Your task to perform on an android device: Open a new private tab in Chrome Image 0: 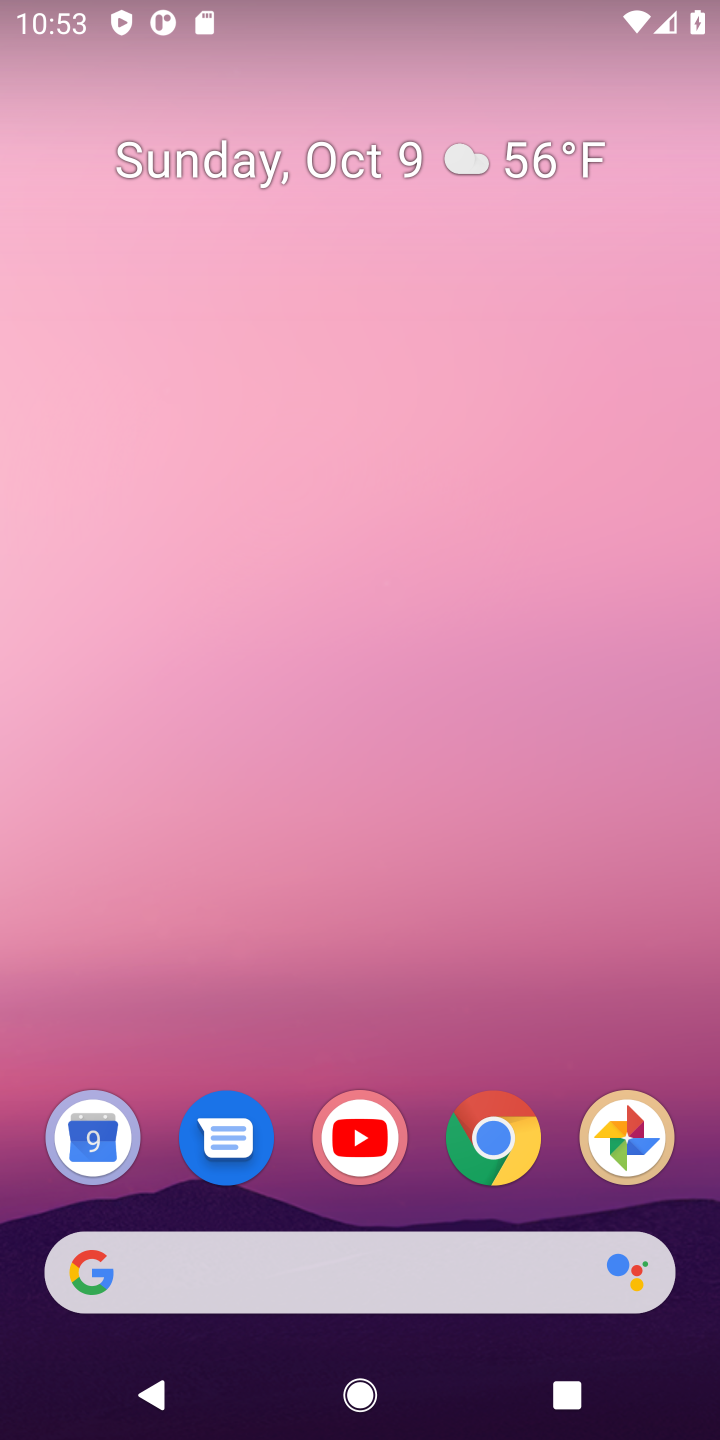
Step 0: click (484, 1127)
Your task to perform on an android device: Open a new private tab in Chrome Image 1: 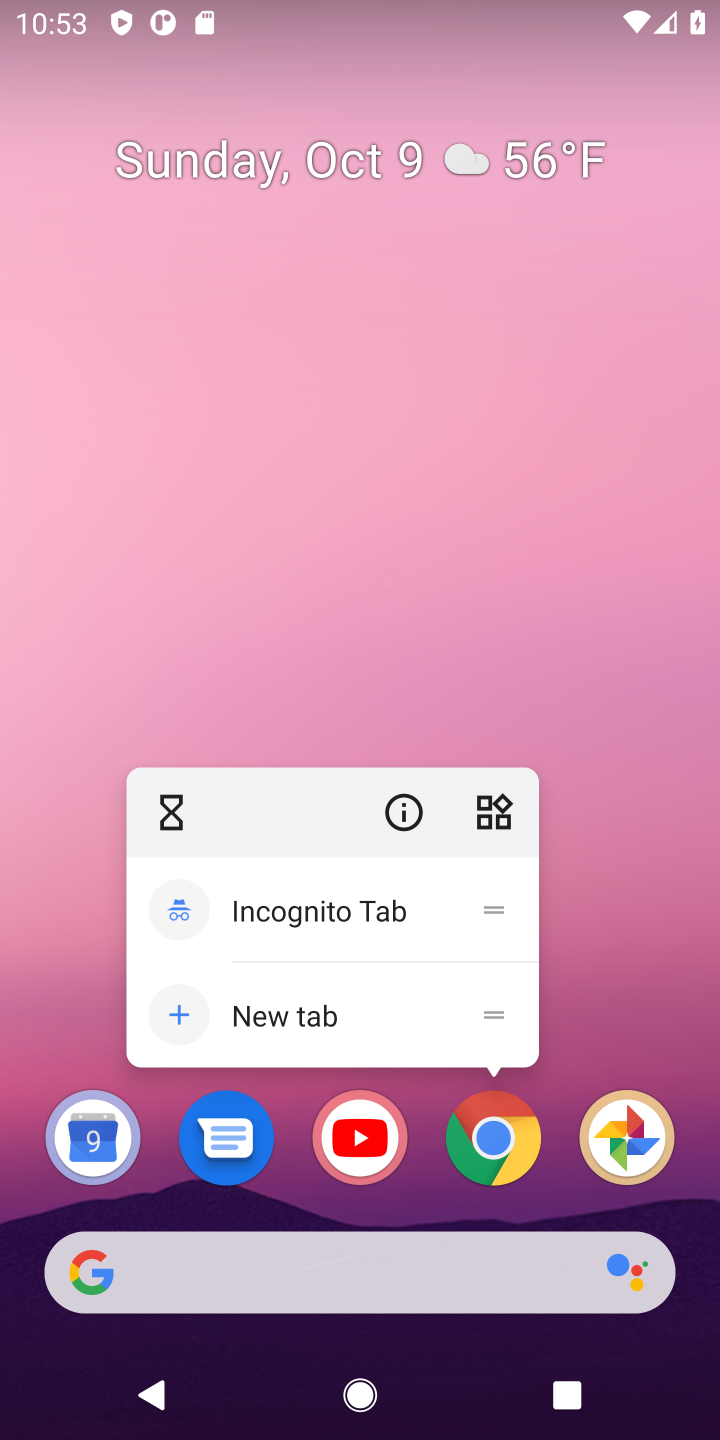
Step 1: click (506, 1141)
Your task to perform on an android device: Open a new private tab in Chrome Image 2: 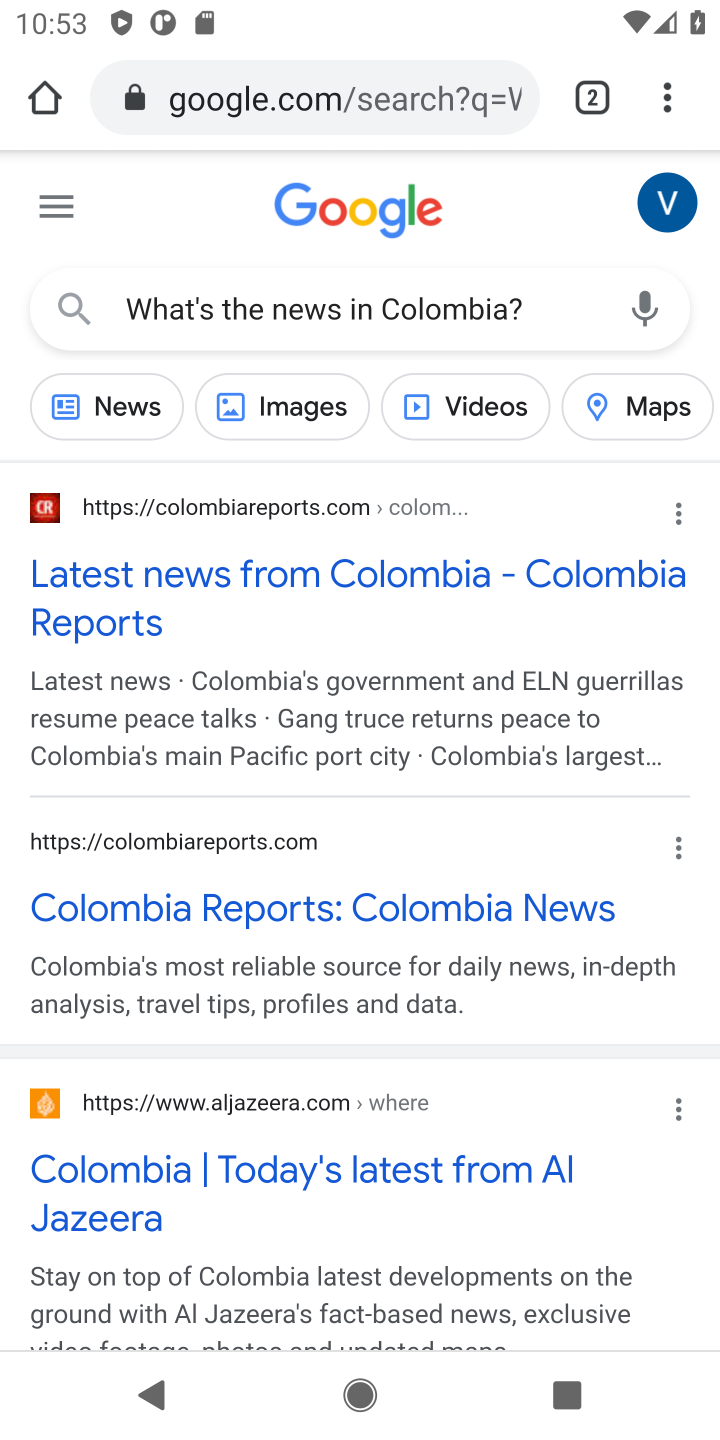
Step 2: click (316, 89)
Your task to perform on an android device: Open a new private tab in Chrome Image 3: 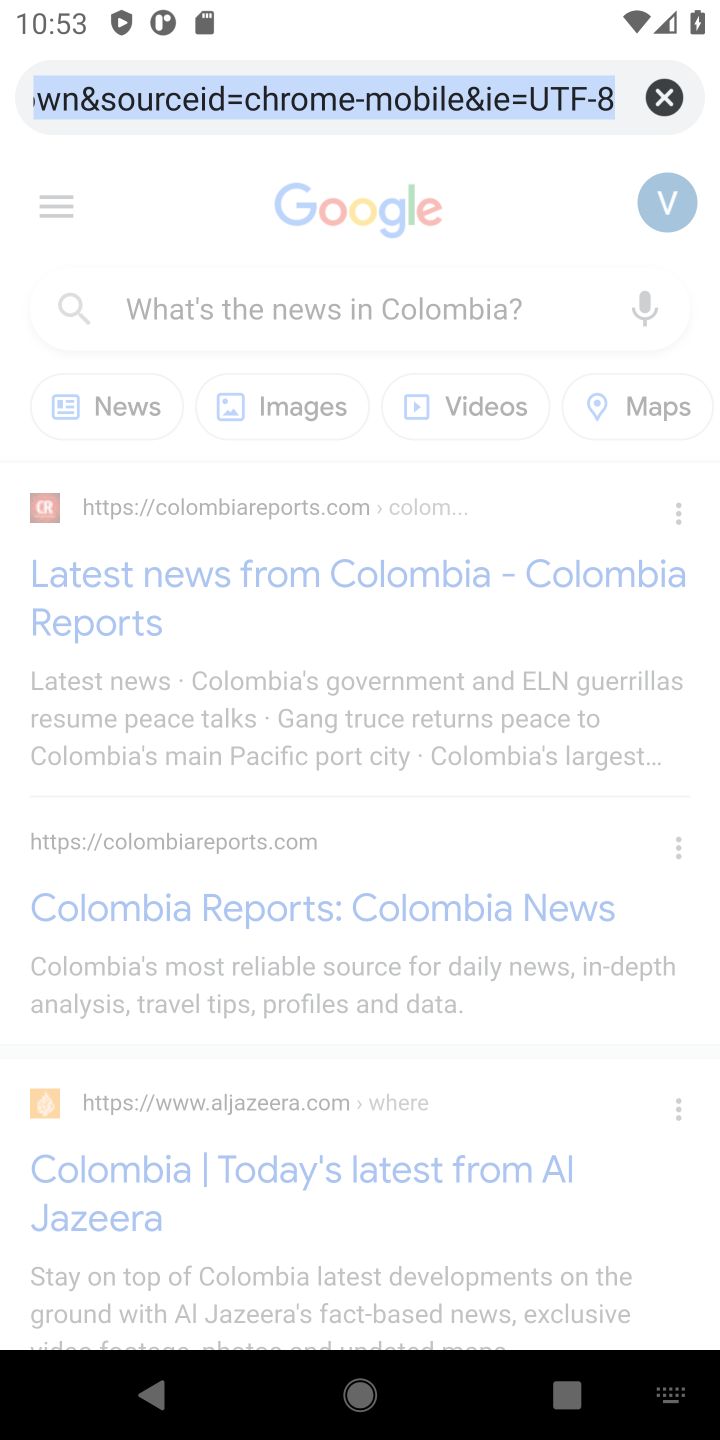
Step 3: click (657, 93)
Your task to perform on an android device: Open a new private tab in Chrome Image 4: 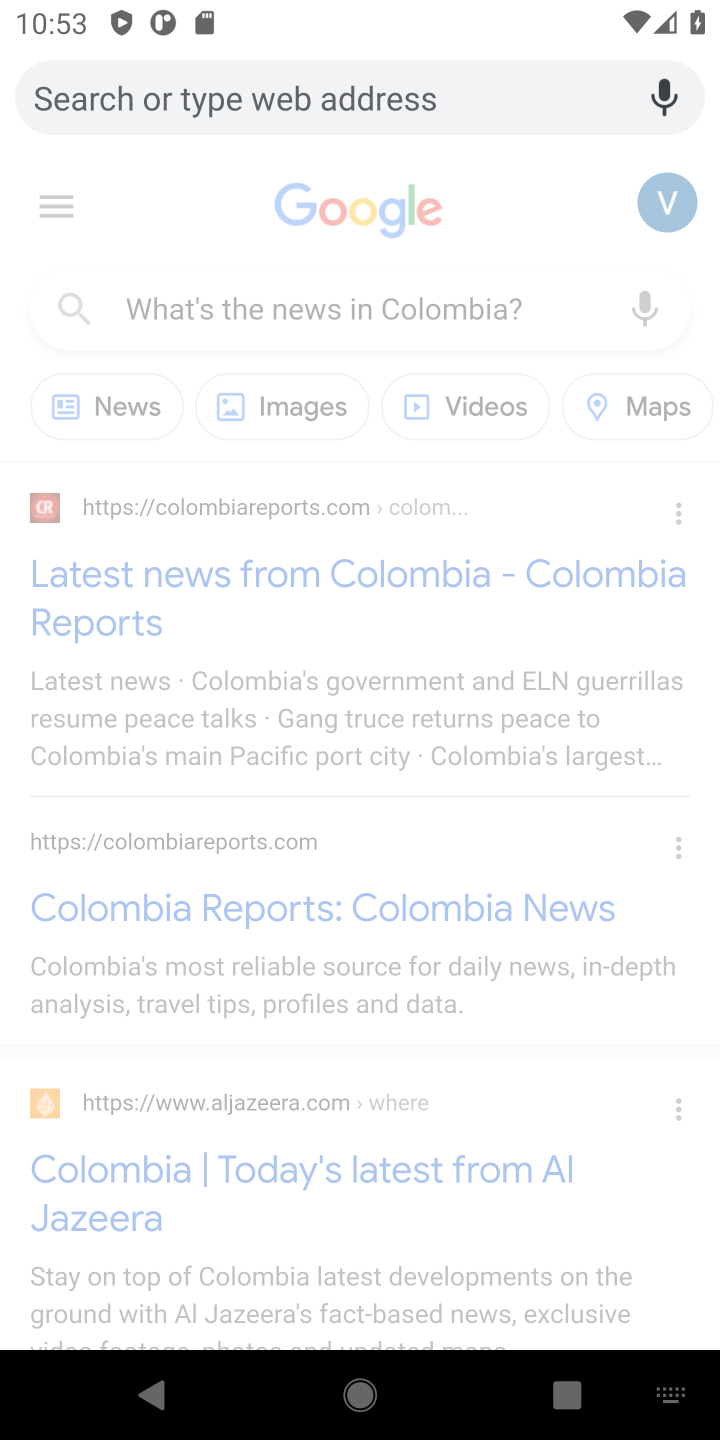
Step 4: type "Open a new private tab in Chrome"
Your task to perform on an android device: Open a new private tab in Chrome Image 5: 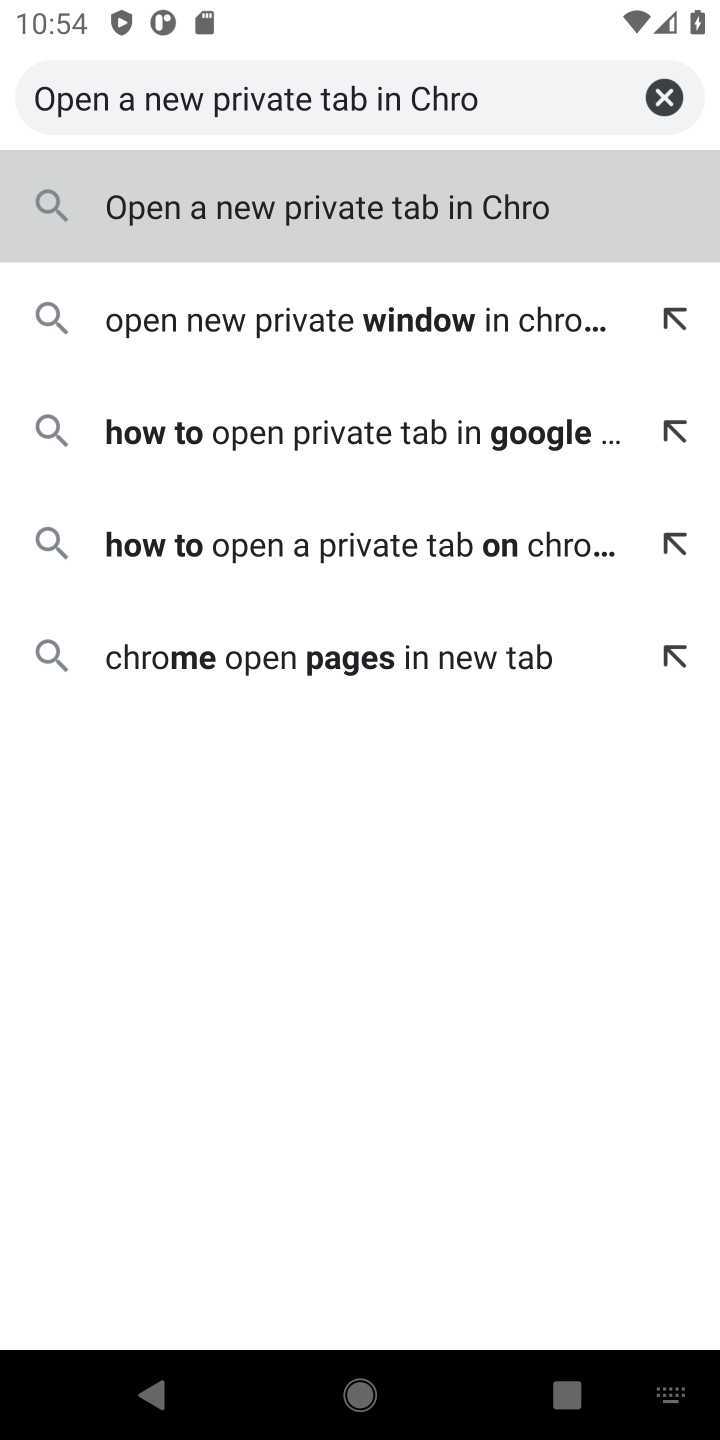
Step 5: click (180, 204)
Your task to perform on an android device: Open a new private tab in Chrome Image 6: 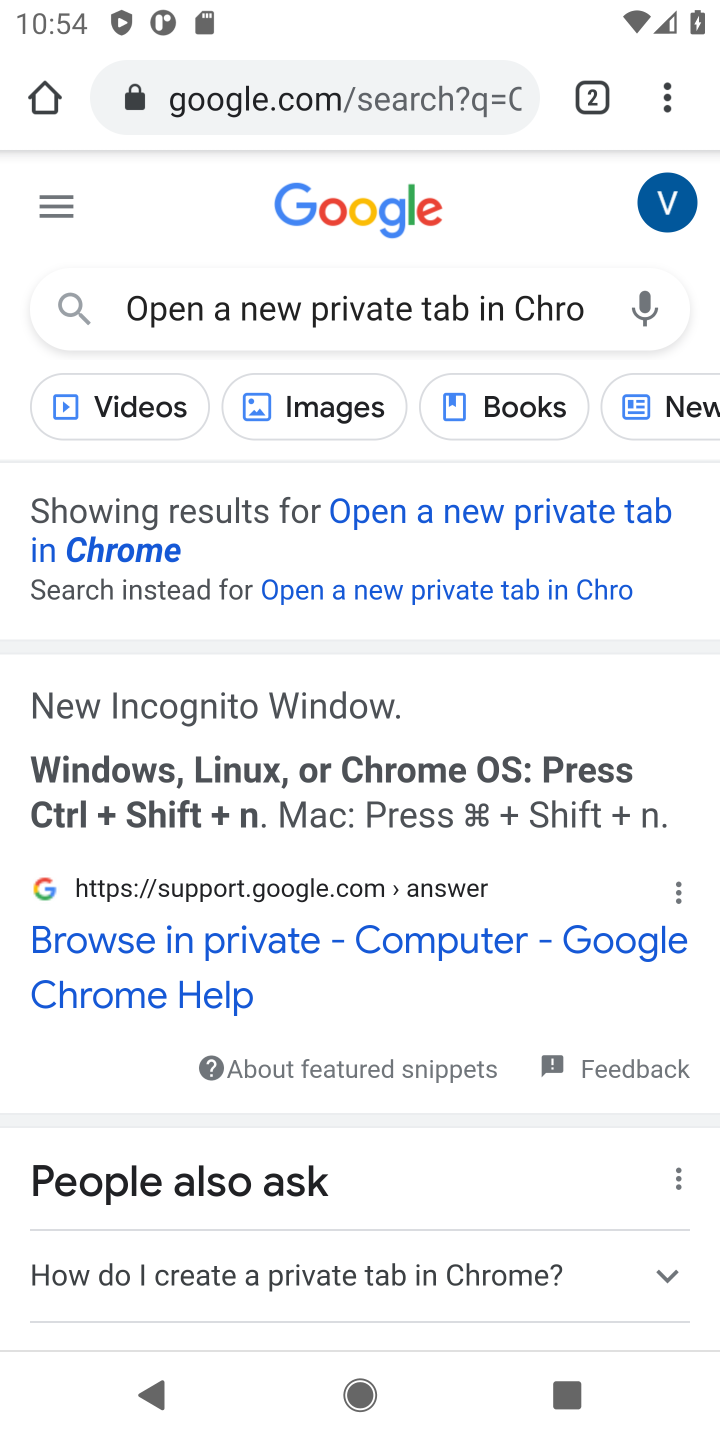
Step 6: task complete